Your task to perform on an android device: turn notification dots off Image 0: 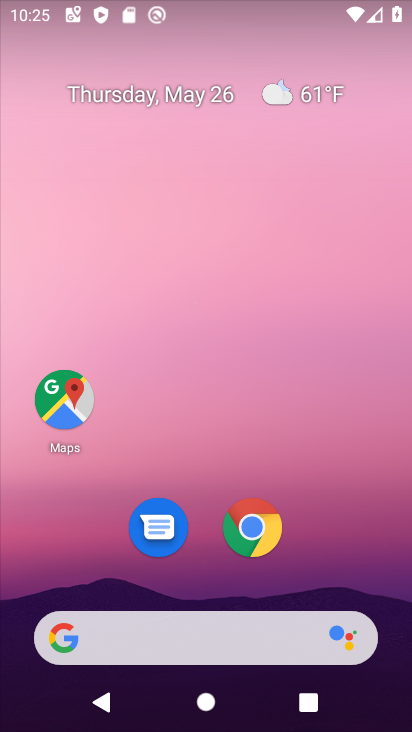
Step 0: drag from (225, 560) to (283, 66)
Your task to perform on an android device: turn notification dots off Image 1: 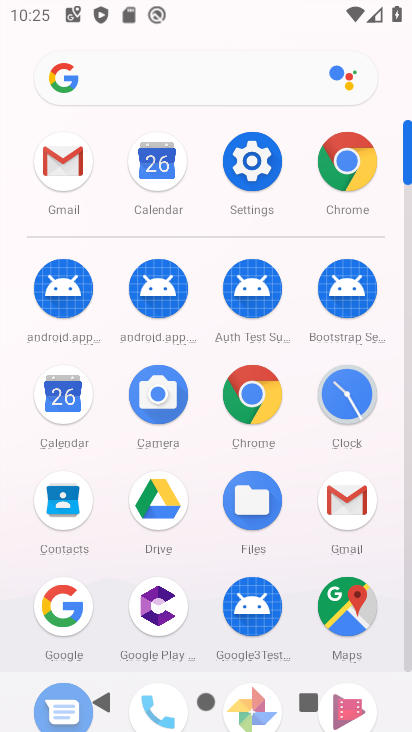
Step 1: click (262, 143)
Your task to perform on an android device: turn notification dots off Image 2: 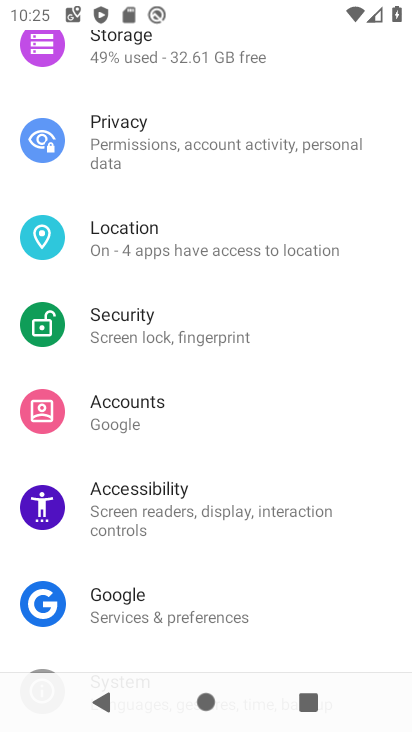
Step 2: drag from (203, 166) to (138, 667)
Your task to perform on an android device: turn notification dots off Image 3: 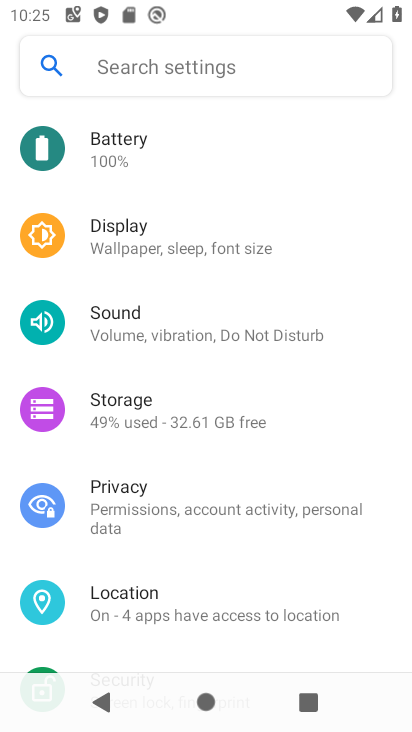
Step 3: drag from (171, 243) to (138, 731)
Your task to perform on an android device: turn notification dots off Image 4: 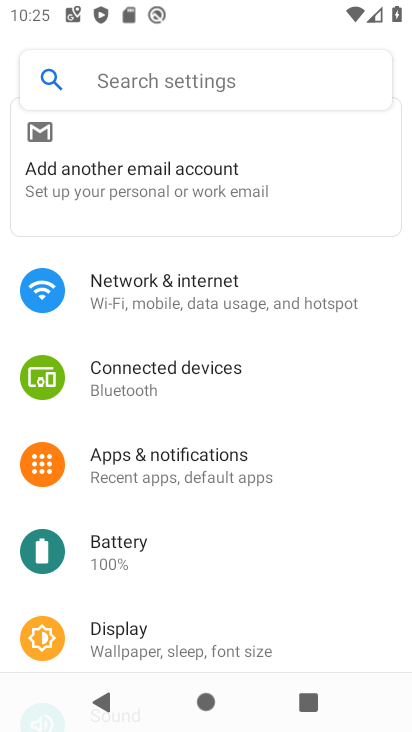
Step 4: click (148, 455)
Your task to perform on an android device: turn notification dots off Image 5: 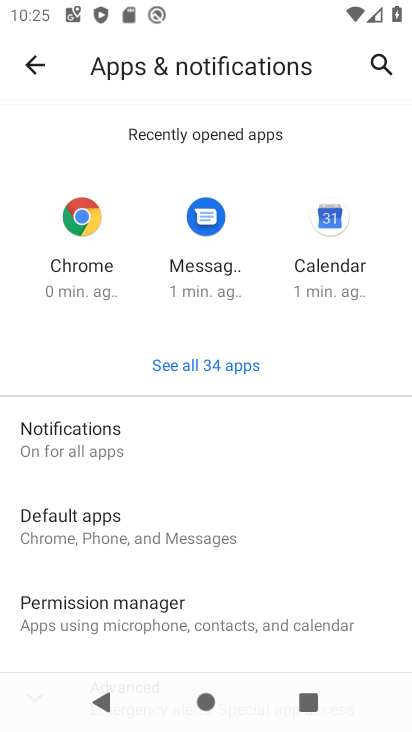
Step 5: click (160, 436)
Your task to perform on an android device: turn notification dots off Image 6: 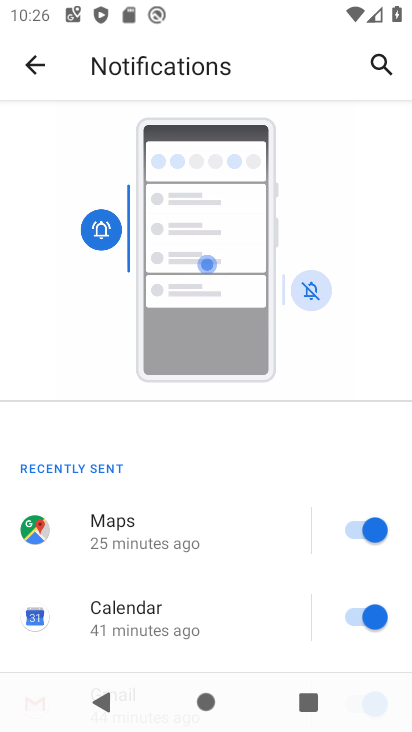
Step 6: drag from (226, 621) to (259, 2)
Your task to perform on an android device: turn notification dots off Image 7: 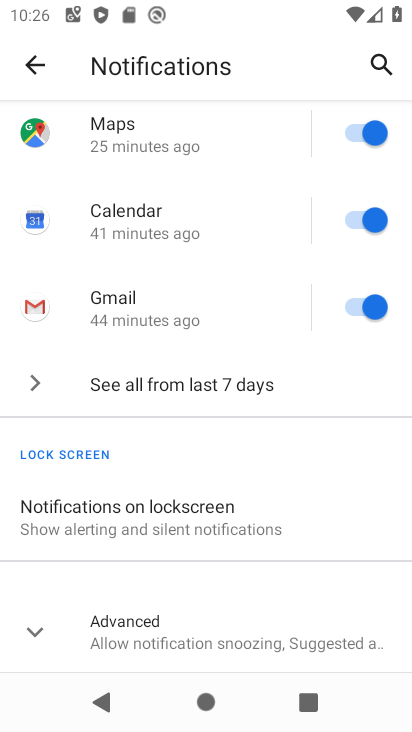
Step 7: drag from (251, 594) to (248, 132)
Your task to perform on an android device: turn notification dots off Image 8: 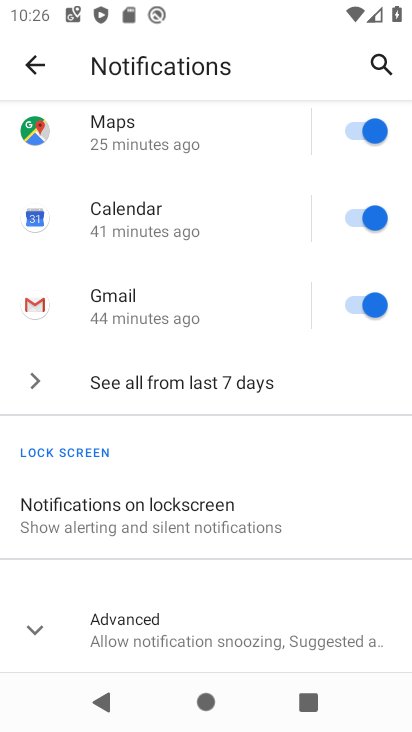
Step 8: click (155, 635)
Your task to perform on an android device: turn notification dots off Image 9: 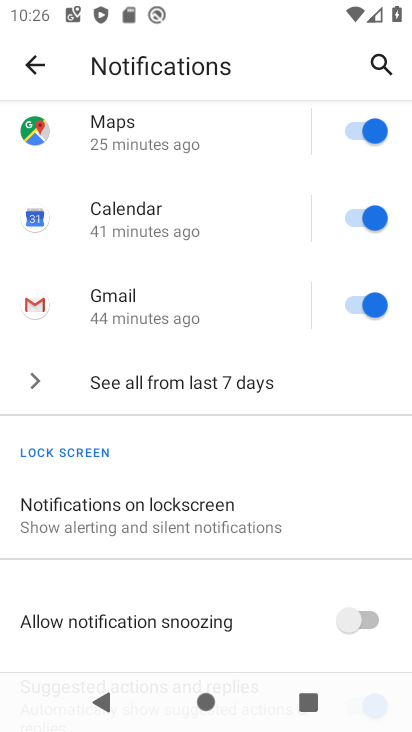
Step 9: drag from (202, 582) to (262, 237)
Your task to perform on an android device: turn notification dots off Image 10: 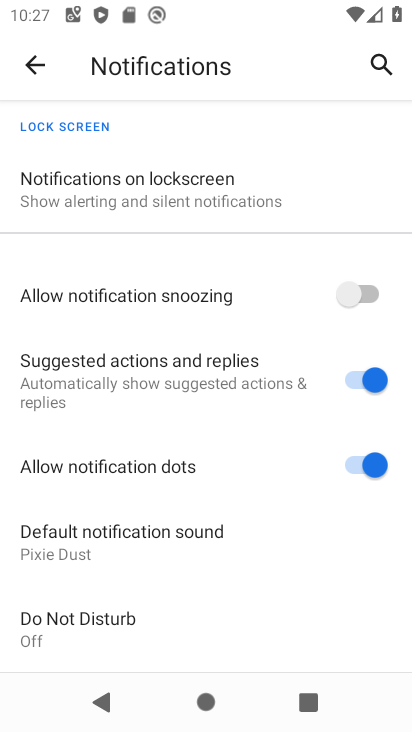
Step 10: click (368, 467)
Your task to perform on an android device: turn notification dots off Image 11: 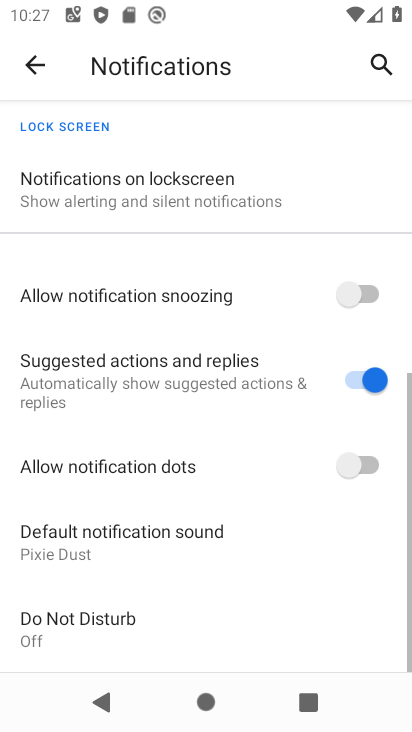
Step 11: task complete